Your task to perform on an android device: turn on notifications settings in the gmail app Image 0: 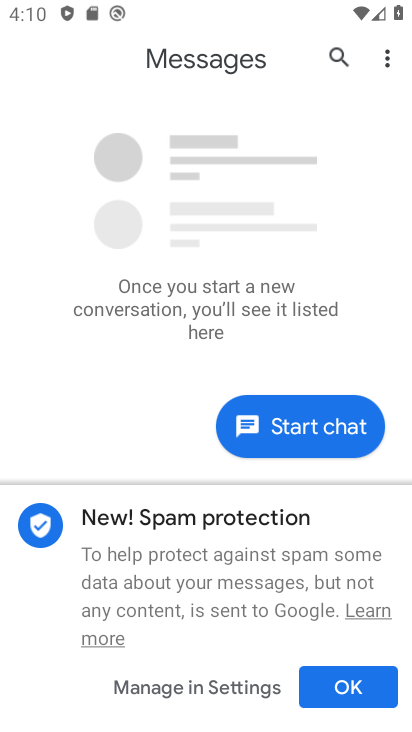
Step 0: press back button
Your task to perform on an android device: turn on notifications settings in the gmail app Image 1: 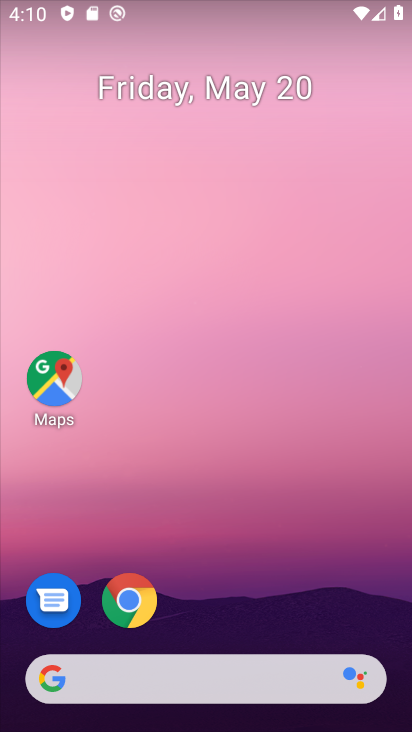
Step 1: drag from (384, 577) to (221, 31)
Your task to perform on an android device: turn on notifications settings in the gmail app Image 2: 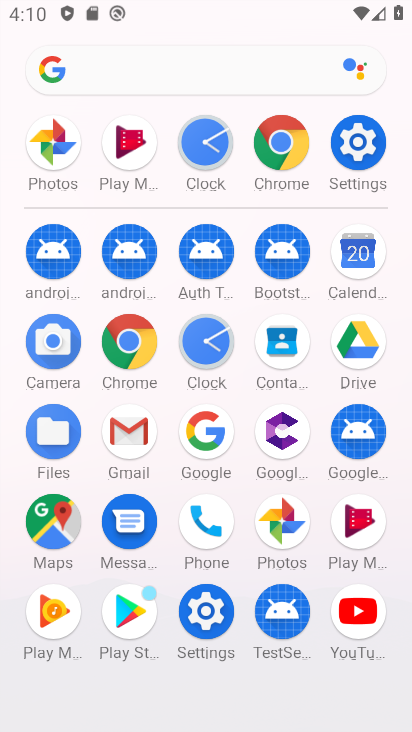
Step 2: drag from (7, 545) to (8, 215)
Your task to perform on an android device: turn on notifications settings in the gmail app Image 3: 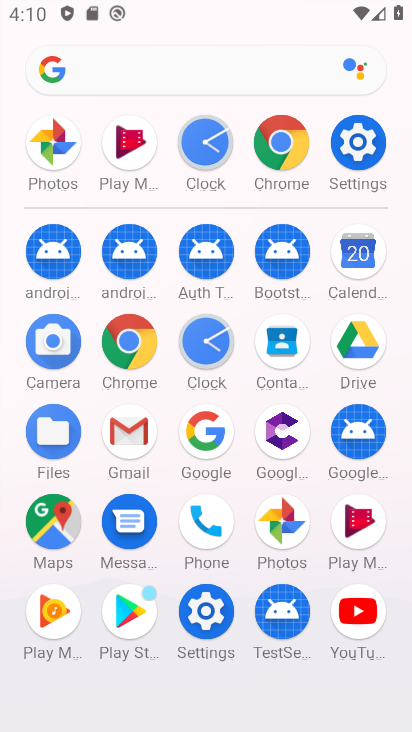
Step 3: click (125, 425)
Your task to perform on an android device: turn on notifications settings in the gmail app Image 4: 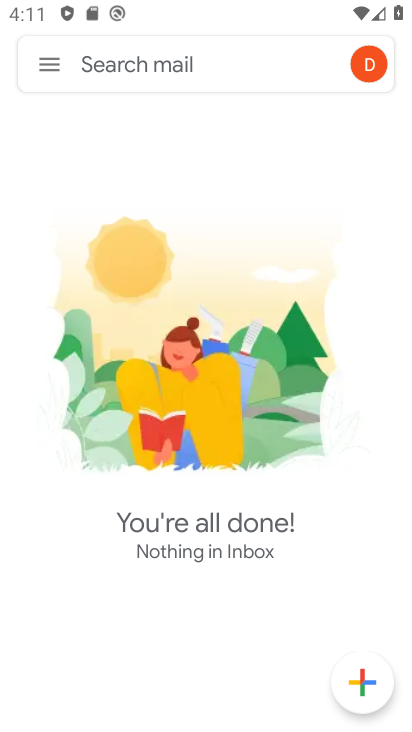
Step 4: click (40, 60)
Your task to perform on an android device: turn on notifications settings in the gmail app Image 5: 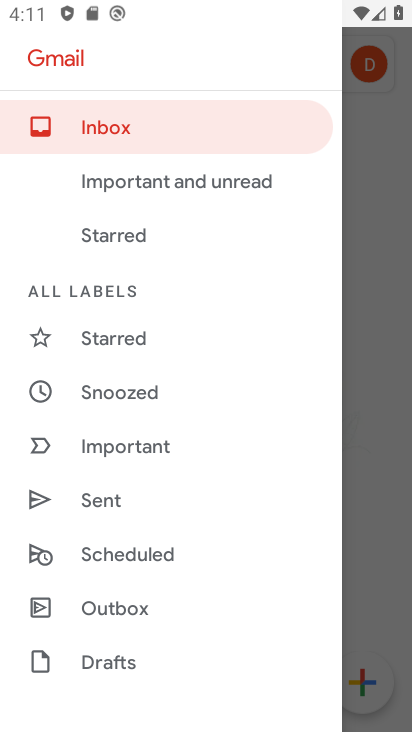
Step 5: drag from (178, 599) to (203, 174)
Your task to perform on an android device: turn on notifications settings in the gmail app Image 6: 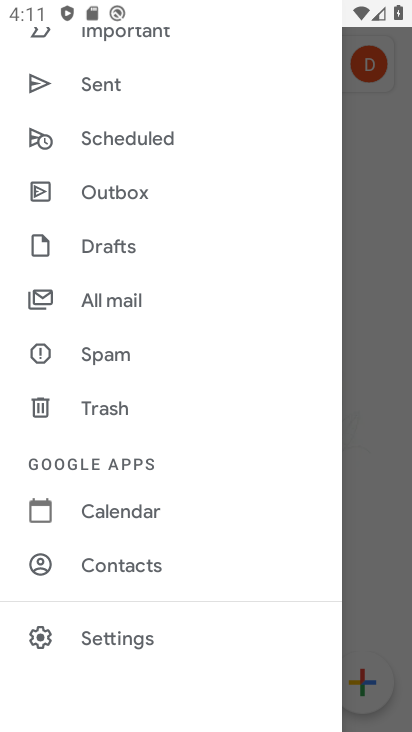
Step 6: drag from (192, 583) to (179, 193)
Your task to perform on an android device: turn on notifications settings in the gmail app Image 7: 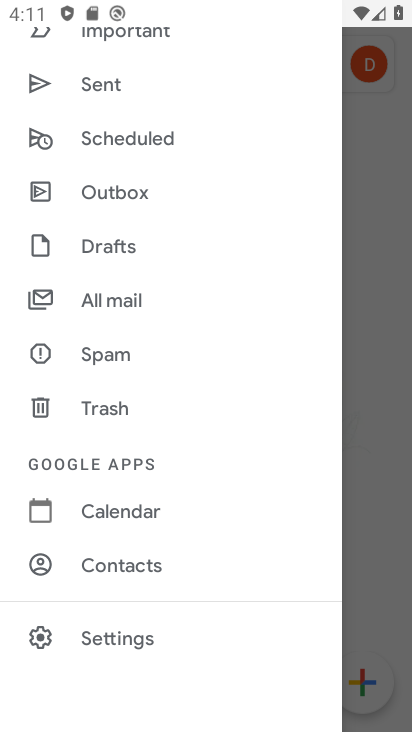
Step 7: drag from (181, 620) to (167, 220)
Your task to perform on an android device: turn on notifications settings in the gmail app Image 8: 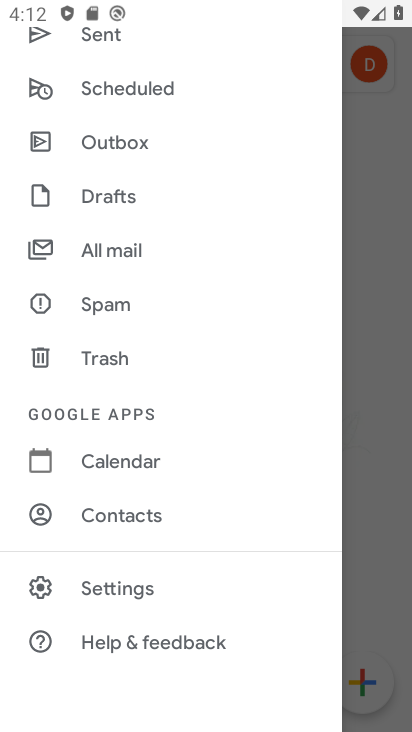
Step 8: click (108, 577)
Your task to perform on an android device: turn on notifications settings in the gmail app Image 9: 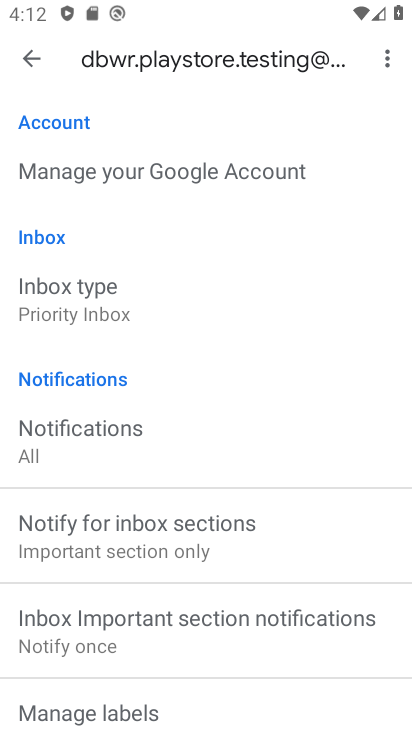
Step 9: drag from (221, 538) to (224, 317)
Your task to perform on an android device: turn on notifications settings in the gmail app Image 10: 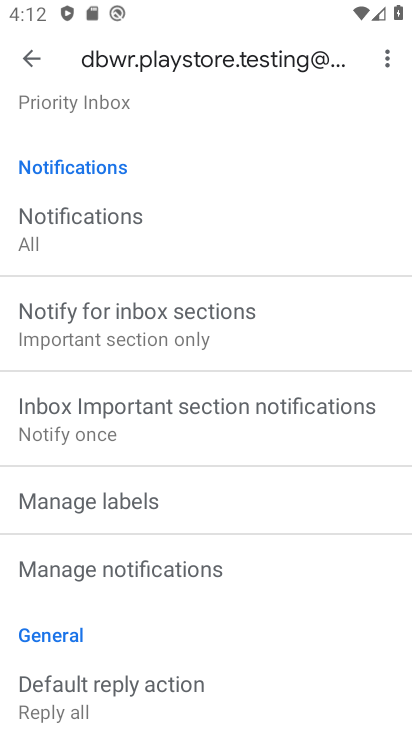
Step 10: click (140, 557)
Your task to perform on an android device: turn on notifications settings in the gmail app Image 11: 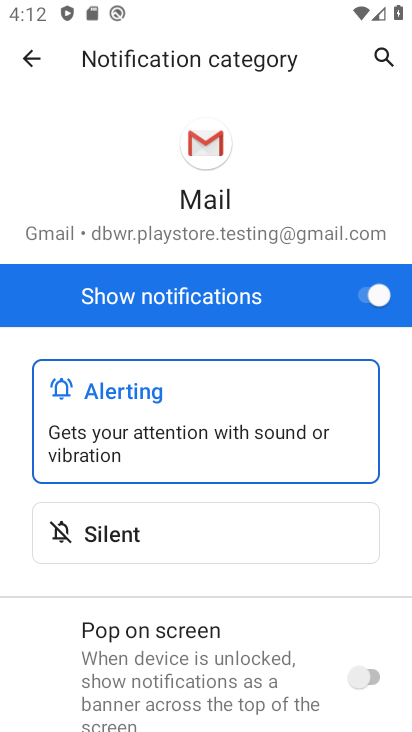
Step 11: task complete